Your task to perform on an android device: change the clock style Image 0: 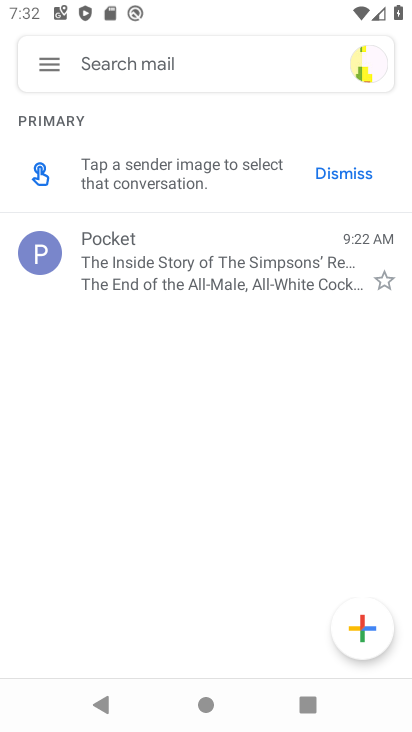
Step 0: press home button
Your task to perform on an android device: change the clock style Image 1: 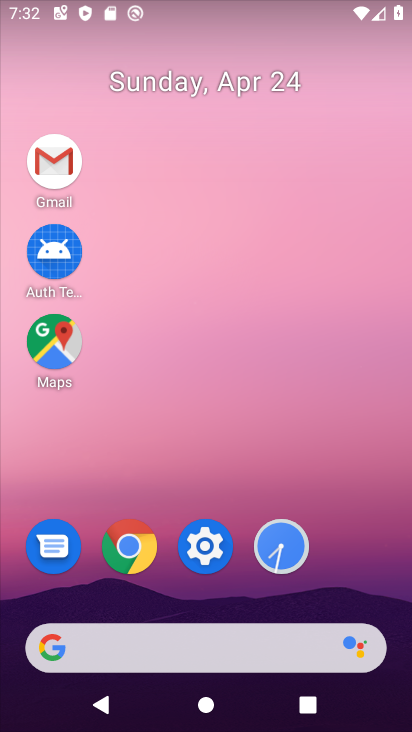
Step 1: click (281, 538)
Your task to perform on an android device: change the clock style Image 2: 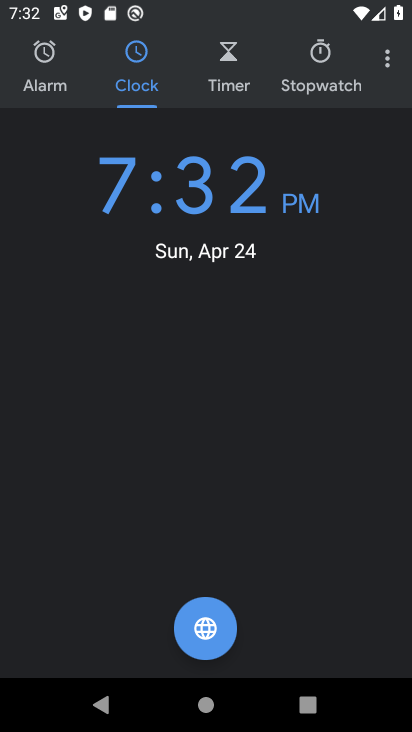
Step 2: click (389, 58)
Your task to perform on an android device: change the clock style Image 3: 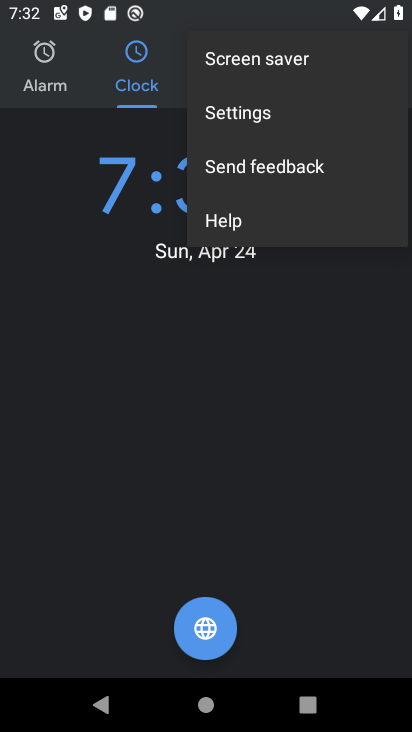
Step 3: click (228, 112)
Your task to perform on an android device: change the clock style Image 4: 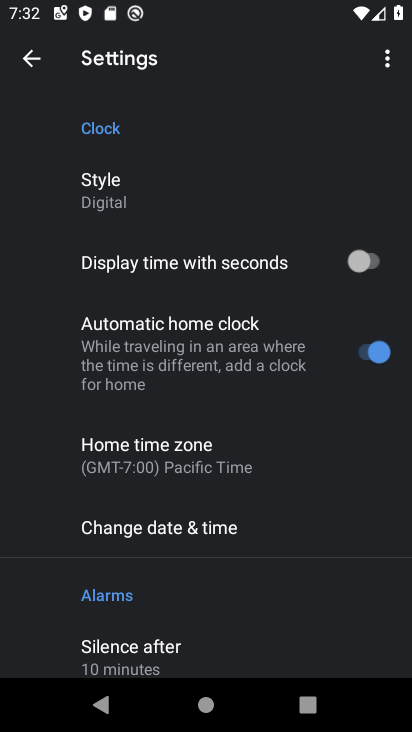
Step 4: click (102, 187)
Your task to perform on an android device: change the clock style Image 5: 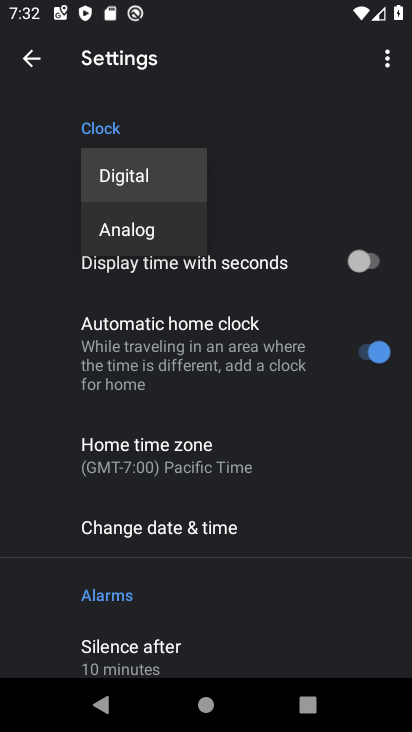
Step 5: click (128, 236)
Your task to perform on an android device: change the clock style Image 6: 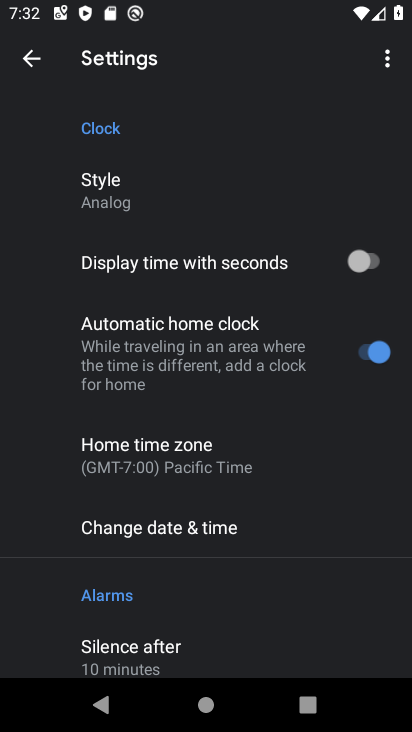
Step 6: task complete